Your task to perform on an android device: turn off airplane mode Image 0: 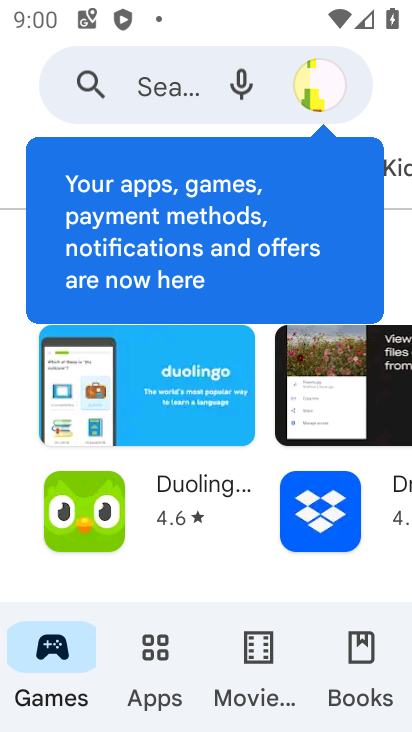
Step 0: press back button
Your task to perform on an android device: turn off airplane mode Image 1: 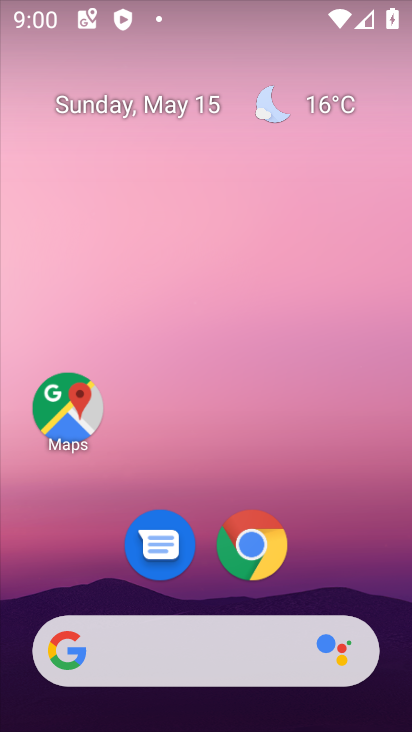
Step 1: drag from (324, 548) to (235, 191)
Your task to perform on an android device: turn off airplane mode Image 2: 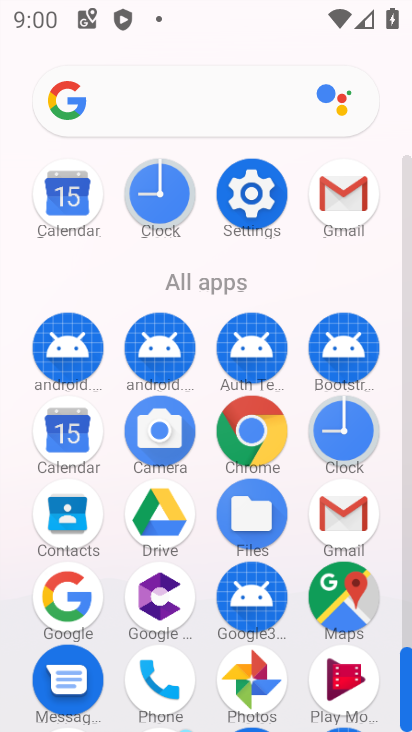
Step 2: click (250, 194)
Your task to perform on an android device: turn off airplane mode Image 3: 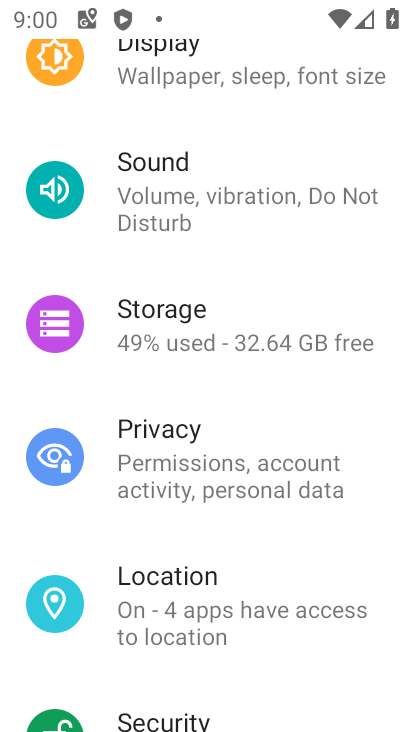
Step 3: drag from (282, 170) to (247, 318)
Your task to perform on an android device: turn off airplane mode Image 4: 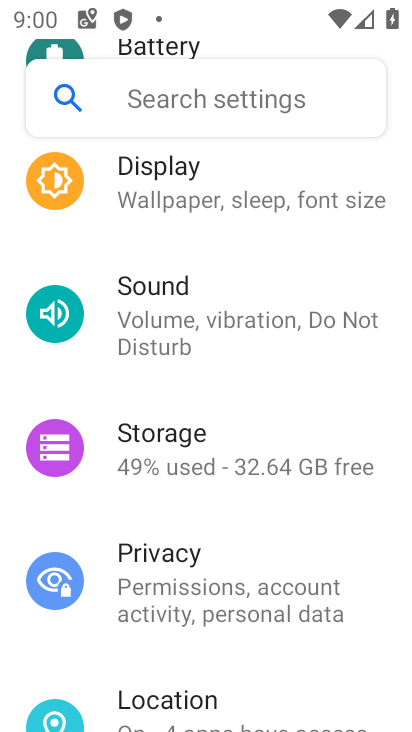
Step 4: drag from (281, 169) to (250, 335)
Your task to perform on an android device: turn off airplane mode Image 5: 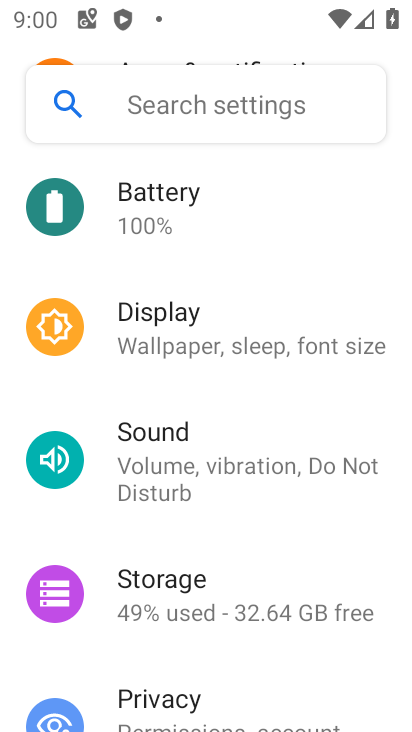
Step 5: drag from (256, 235) to (223, 367)
Your task to perform on an android device: turn off airplane mode Image 6: 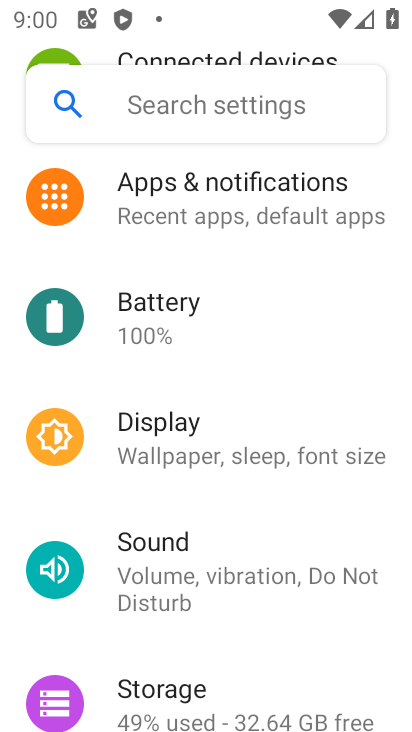
Step 6: drag from (245, 272) to (244, 409)
Your task to perform on an android device: turn off airplane mode Image 7: 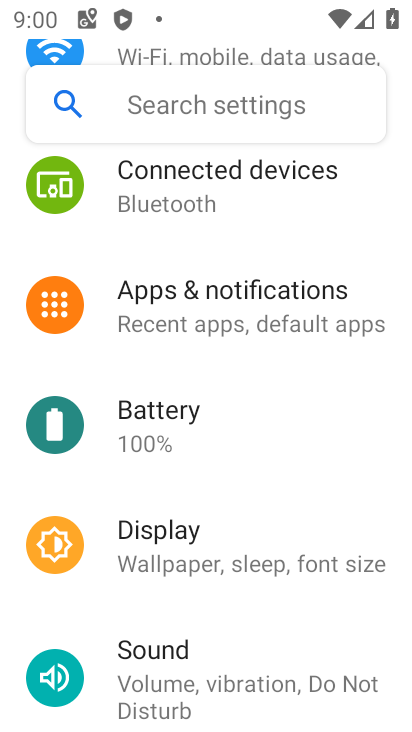
Step 7: drag from (256, 241) to (236, 419)
Your task to perform on an android device: turn off airplane mode Image 8: 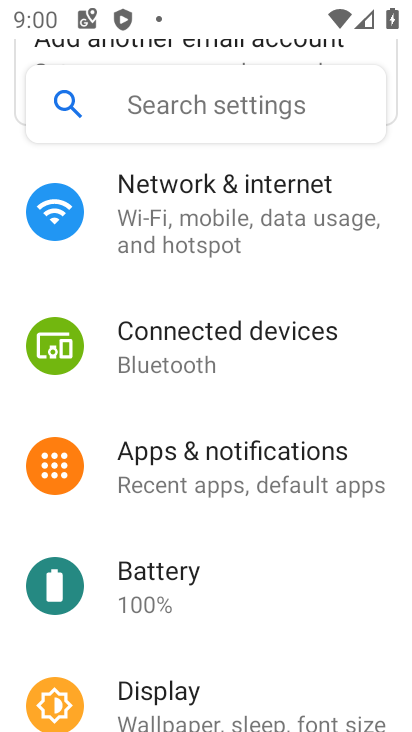
Step 8: click (265, 209)
Your task to perform on an android device: turn off airplane mode Image 9: 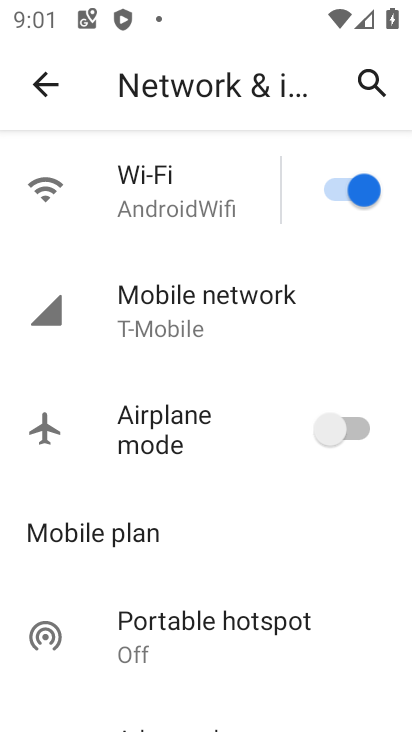
Step 9: task complete